Your task to perform on an android device: Show the shopping cart on target. Image 0: 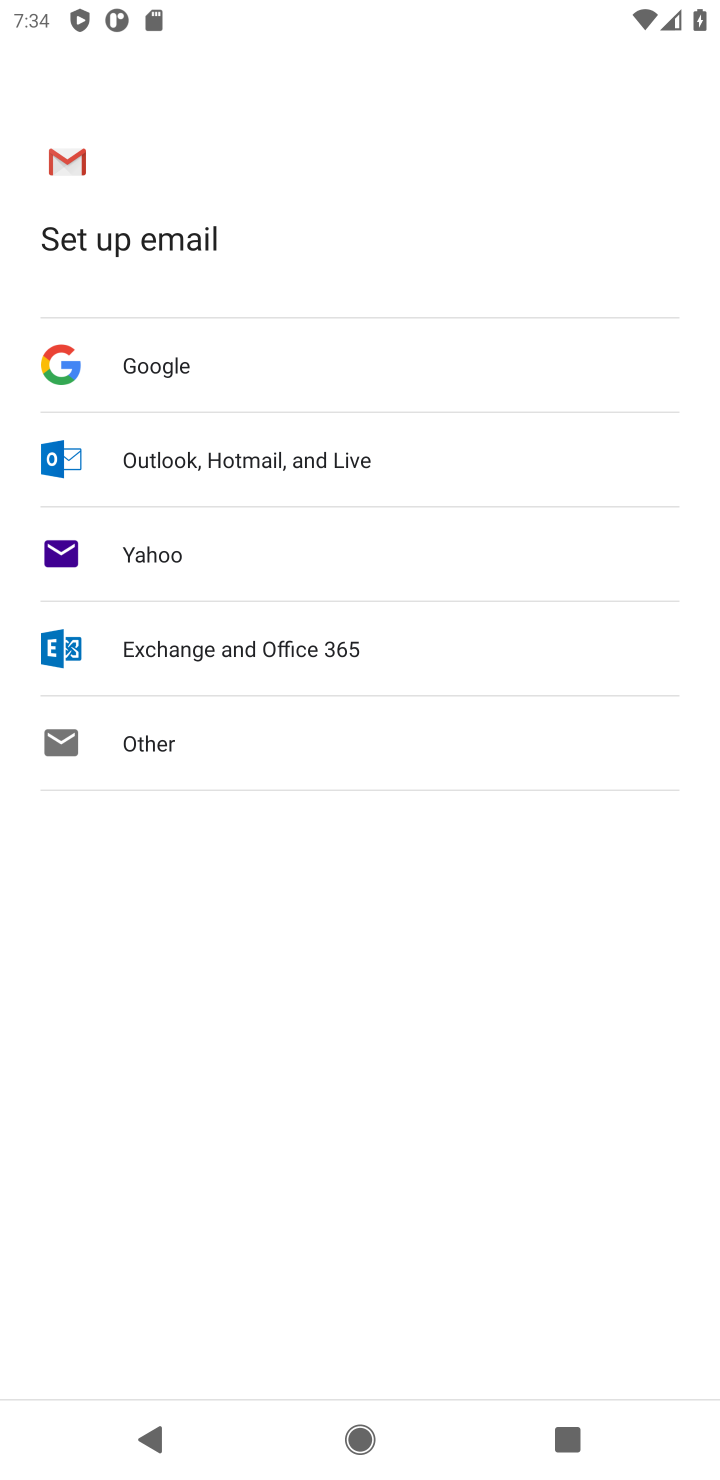
Step 0: press home button
Your task to perform on an android device: Show the shopping cart on target. Image 1: 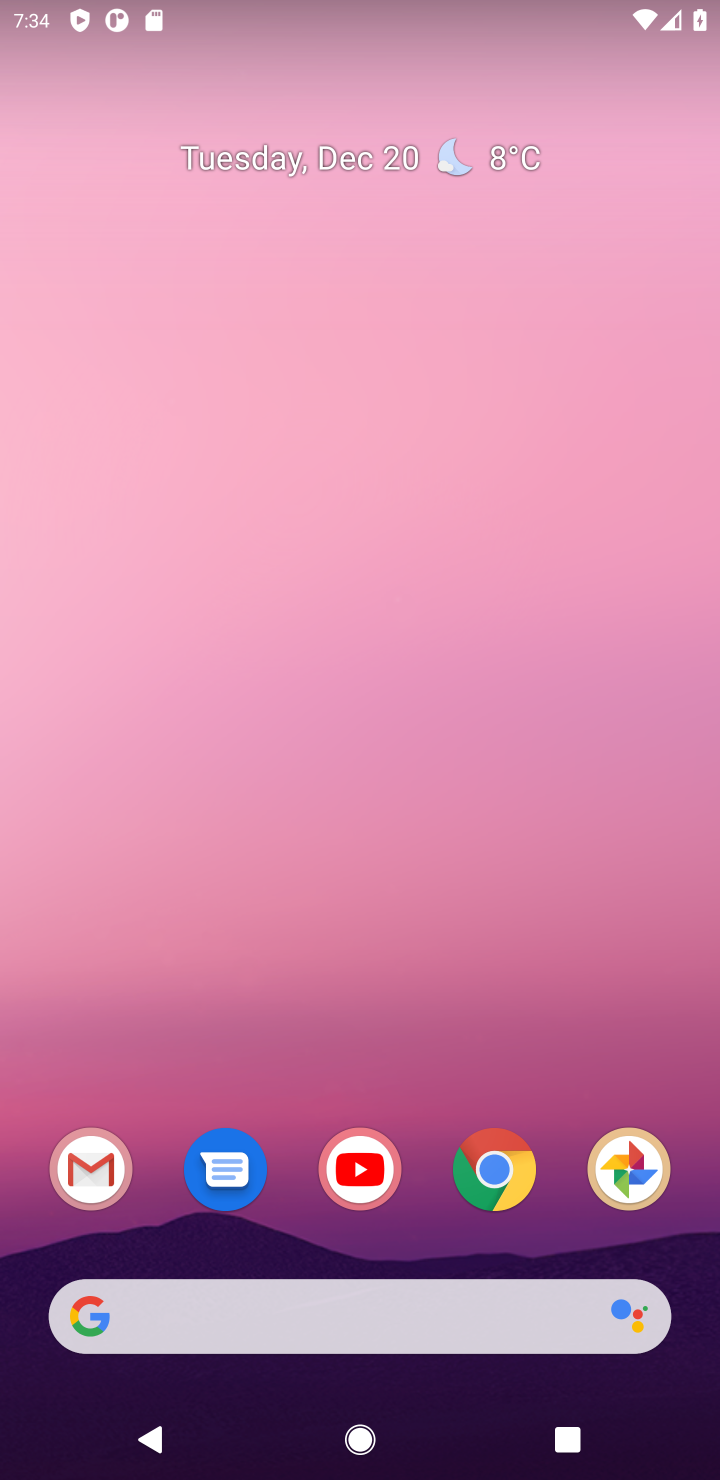
Step 1: click (473, 1188)
Your task to perform on an android device: Show the shopping cart on target. Image 2: 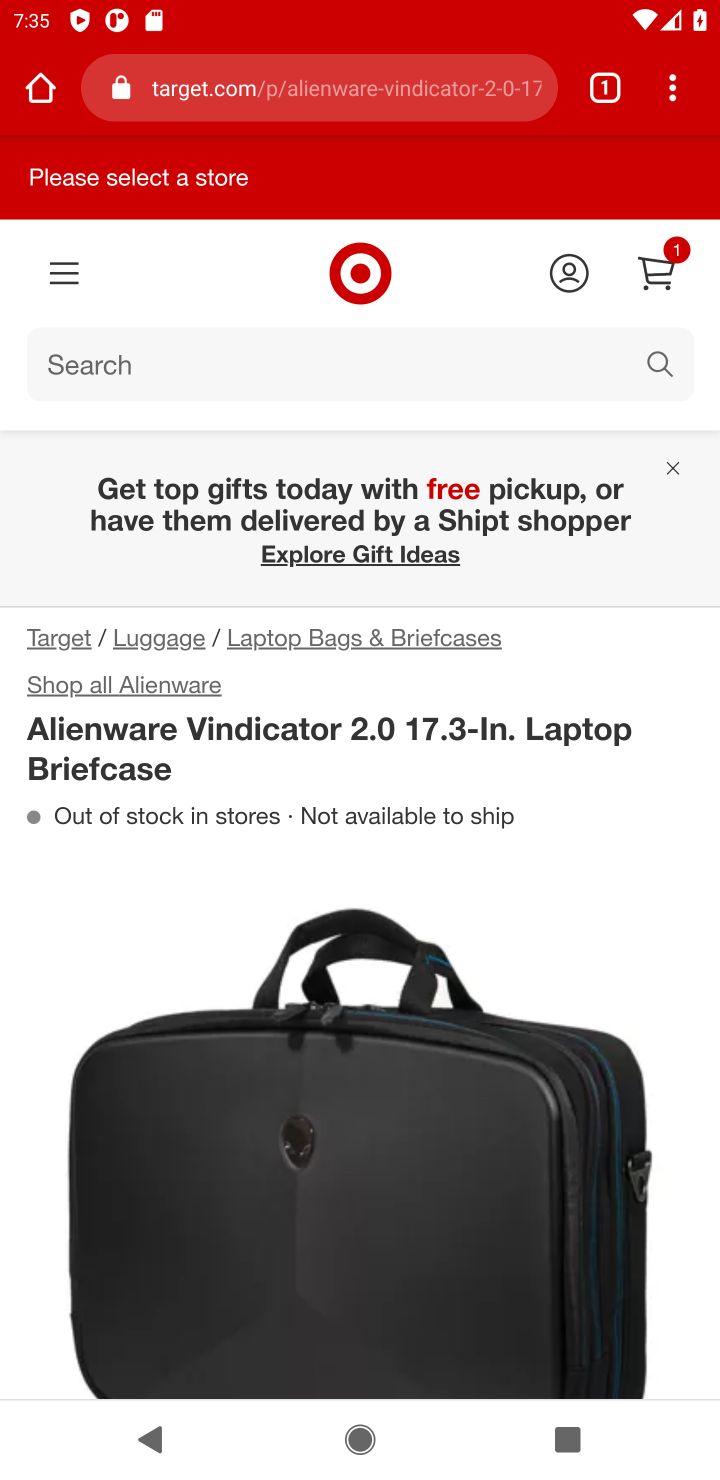
Step 2: click (286, 92)
Your task to perform on an android device: Show the shopping cart on target. Image 3: 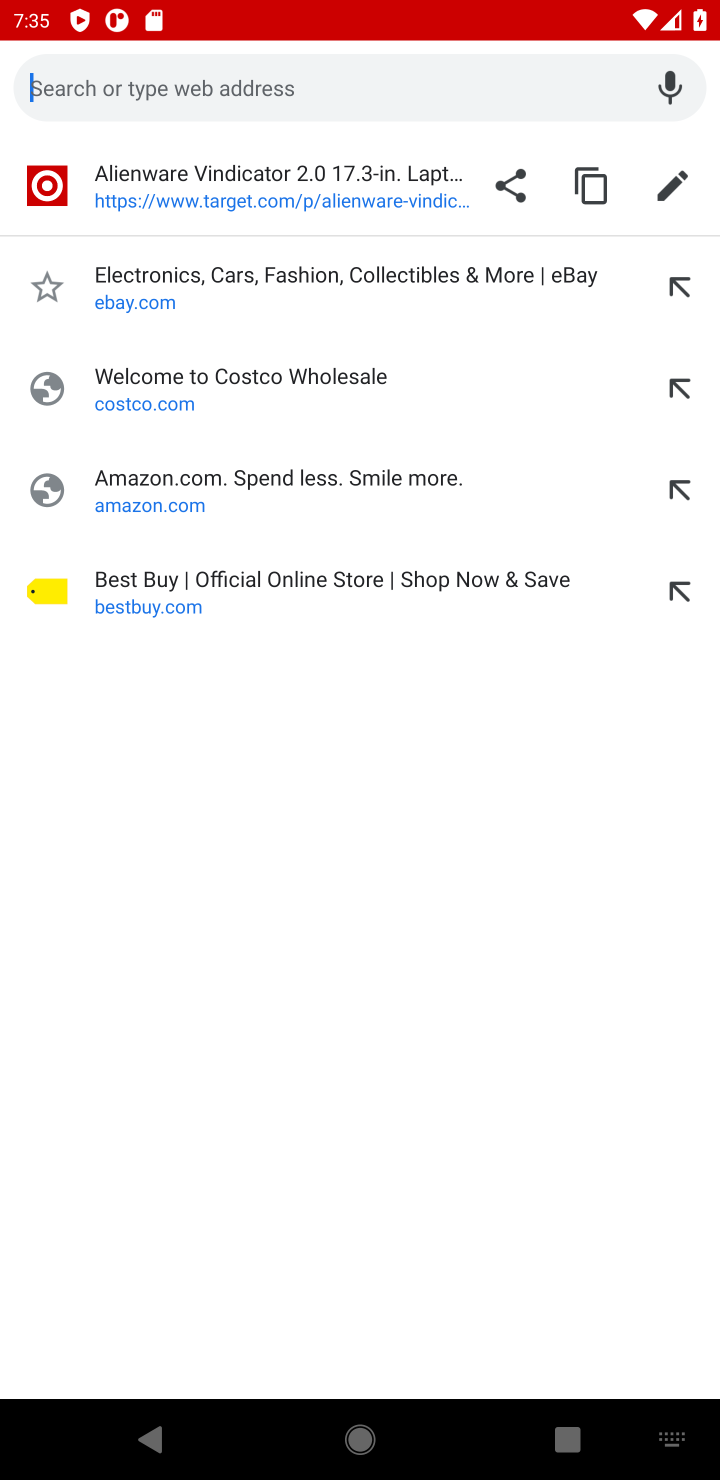
Step 3: type "target"
Your task to perform on an android device: Show the shopping cart on target. Image 4: 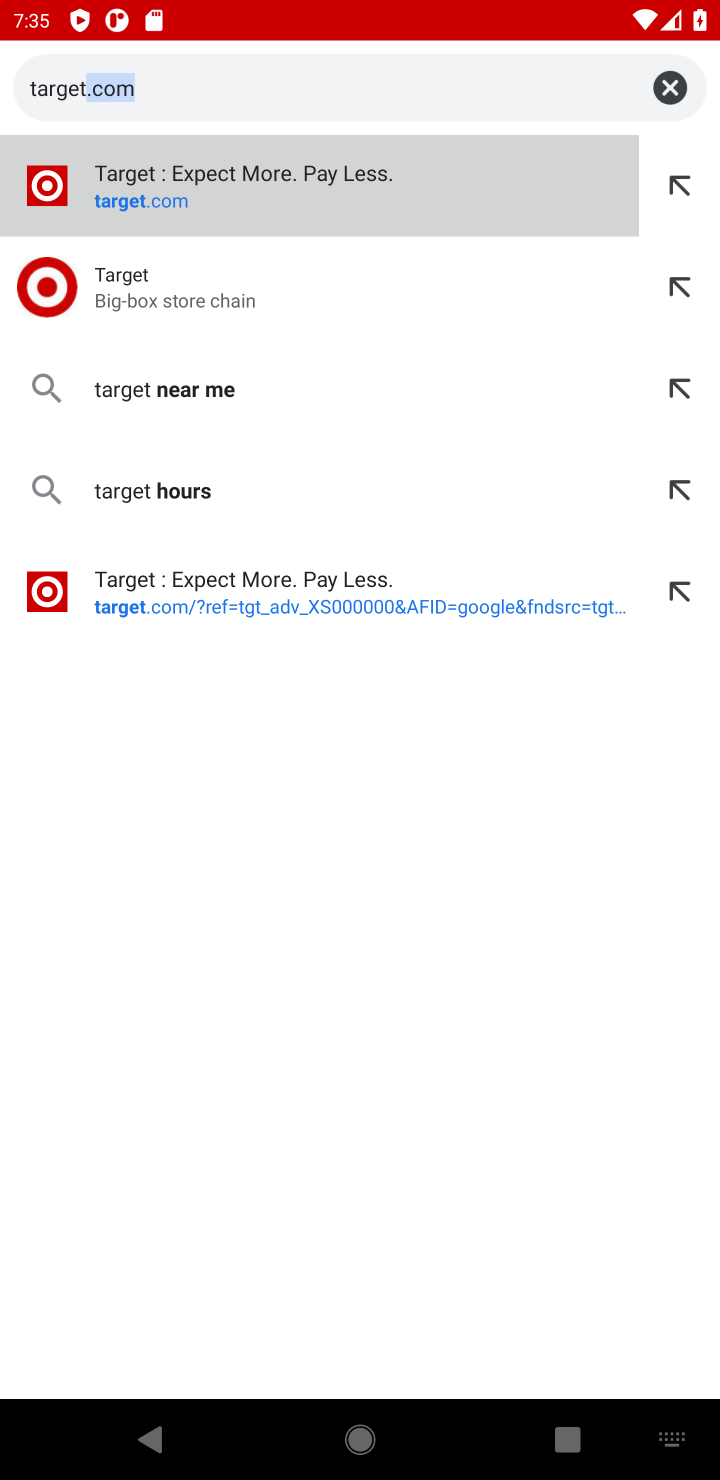
Step 4: click (281, 184)
Your task to perform on an android device: Show the shopping cart on target. Image 5: 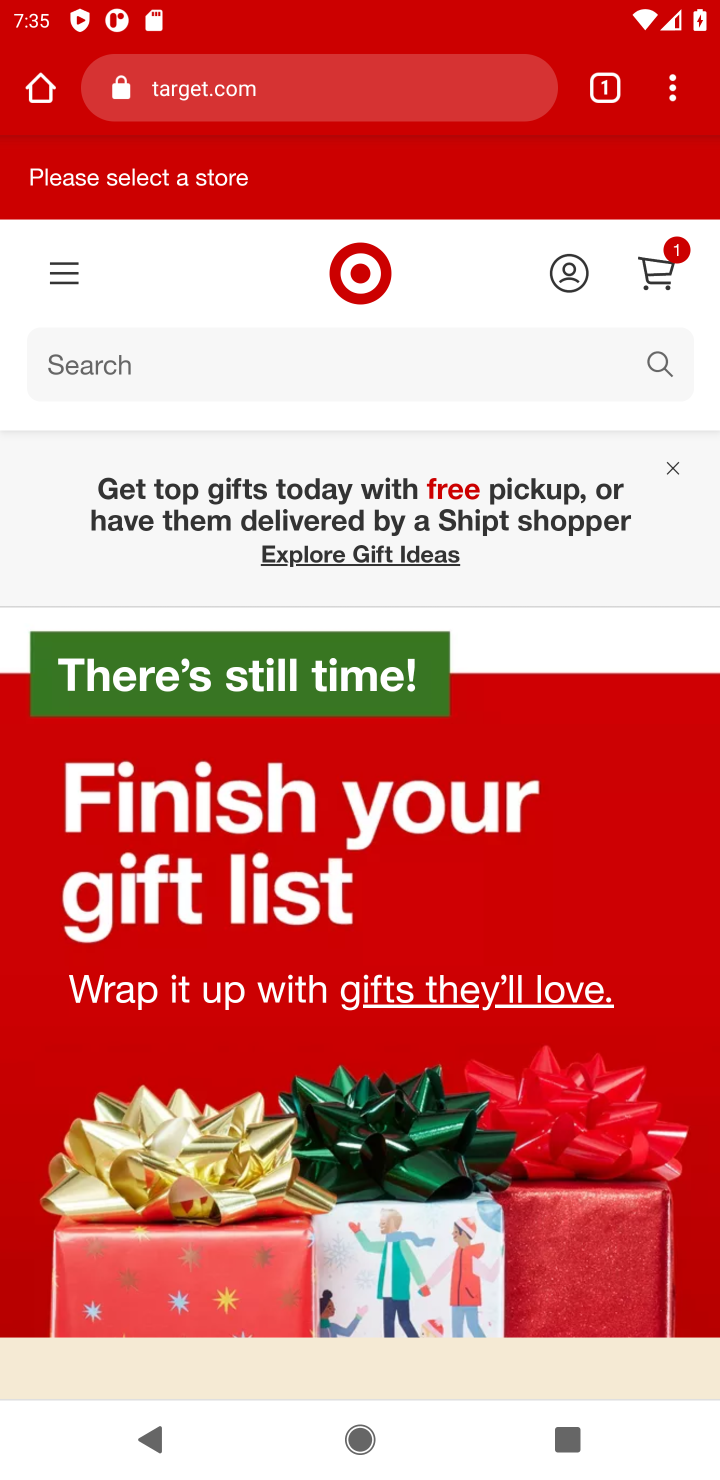
Step 5: click (476, 914)
Your task to perform on an android device: Show the shopping cart on target. Image 6: 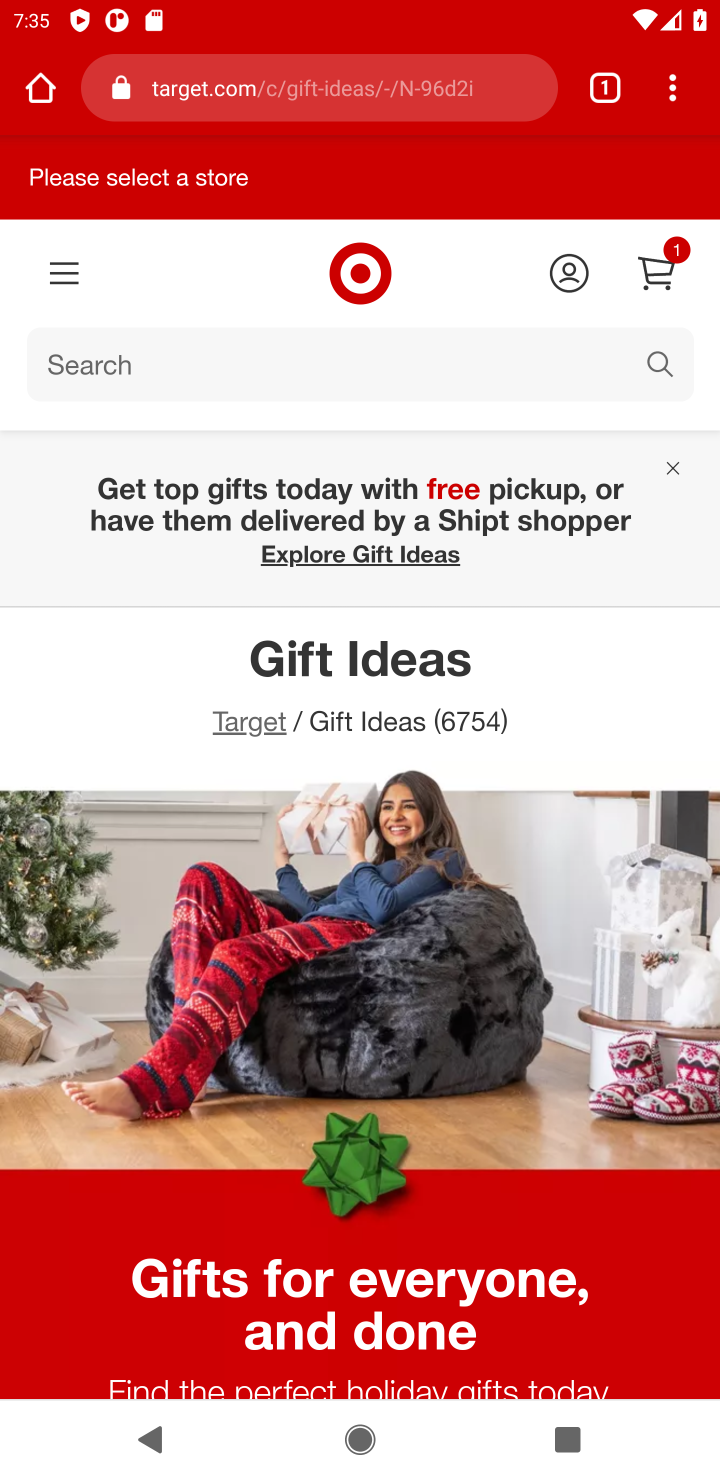
Step 6: click (657, 278)
Your task to perform on an android device: Show the shopping cart on target. Image 7: 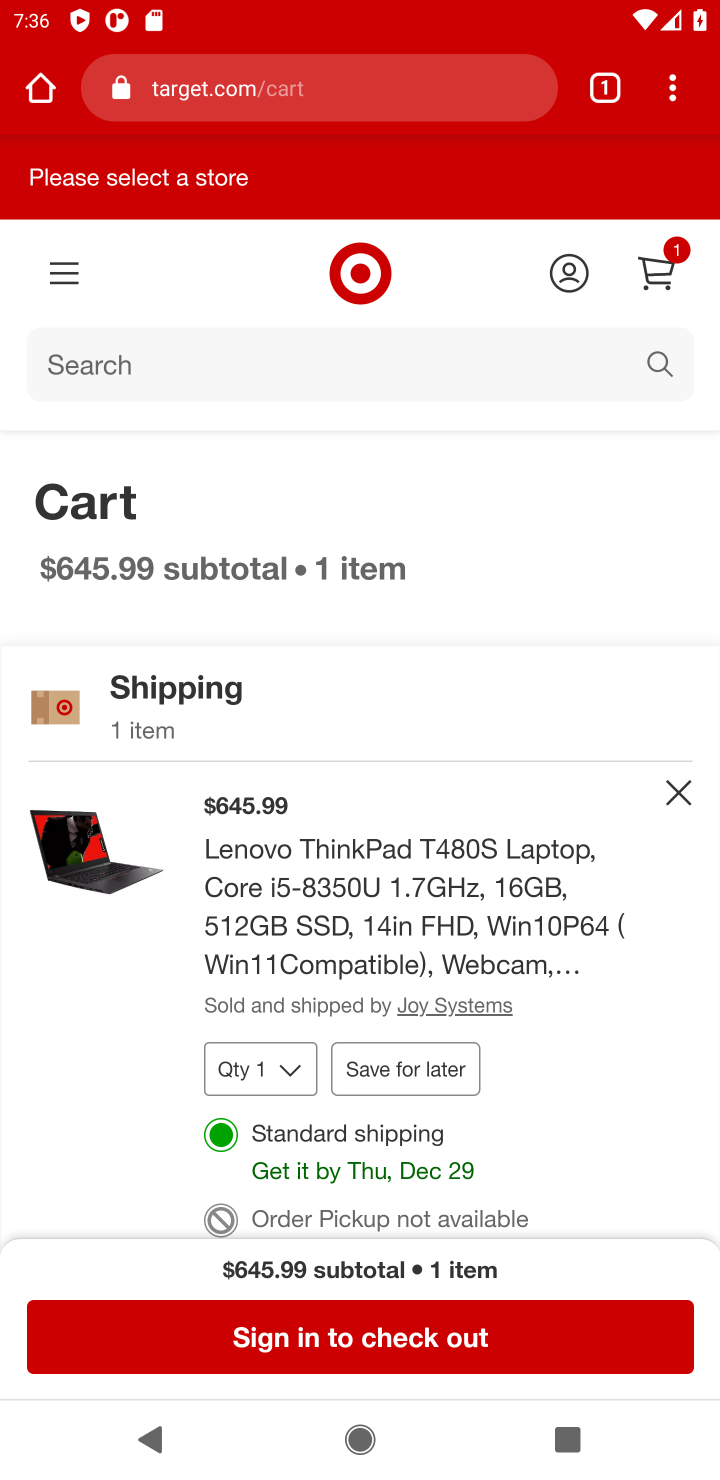
Step 7: click (671, 797)
Your task to perform on an android device: Show the shopping cart on target. Image 8: 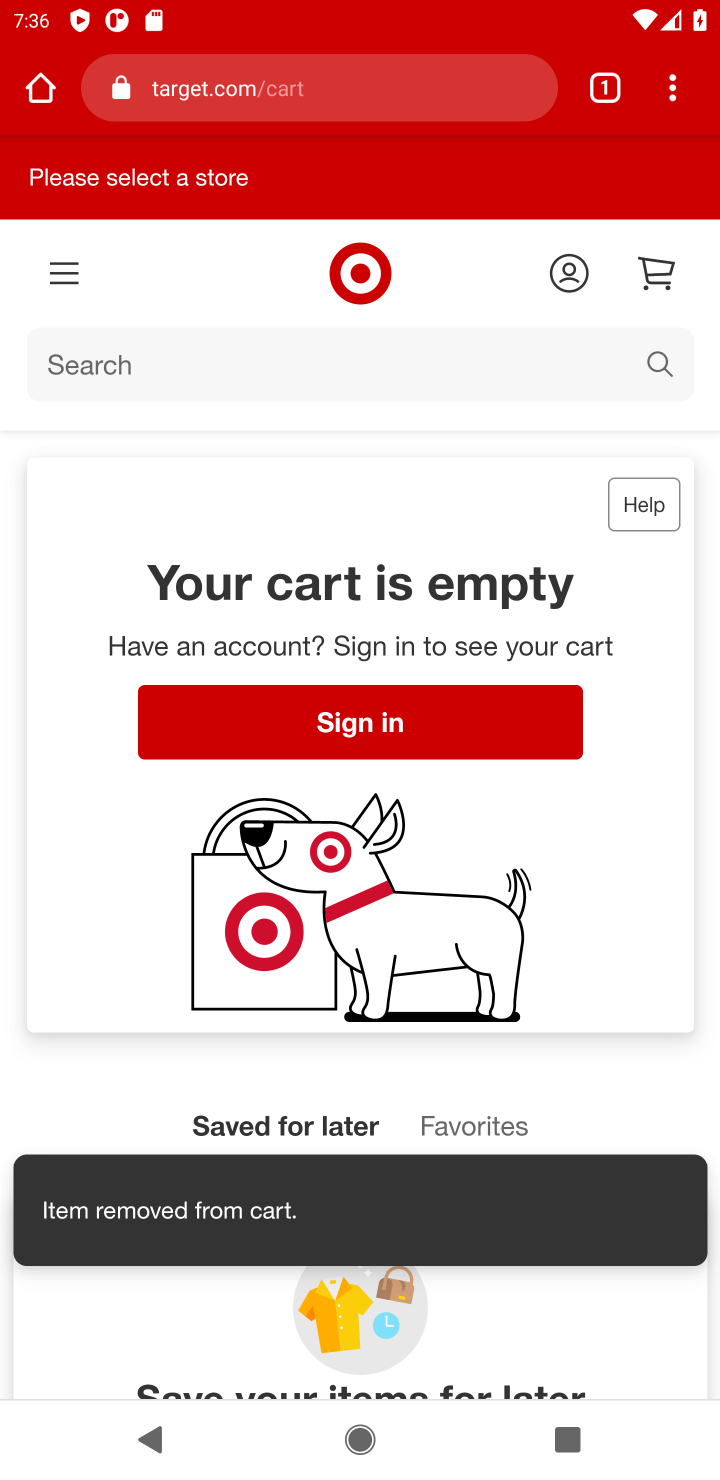
Step 8: task complete